Your task to perform on an android device: Open calendar and show me the second week of next month Image 0: 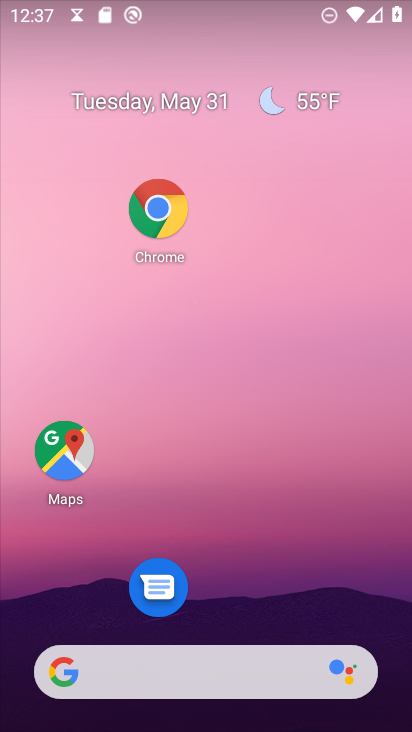
Step 0: drag from (293, 611) to (271, 164)
Your task to perform on an android device: Open calendar and show me the second week of next month Image 1: 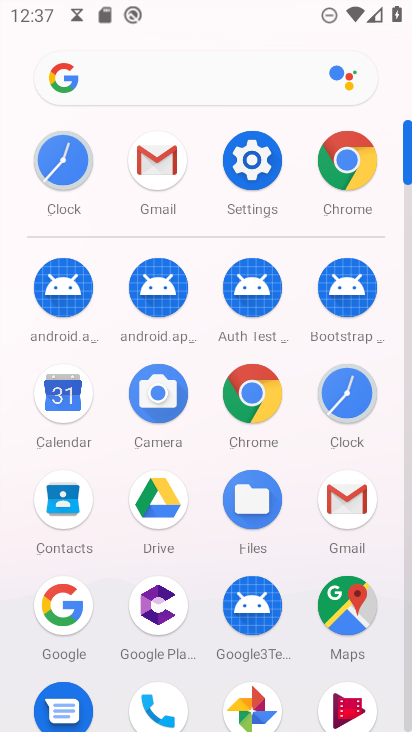
Step 1: click (57, 397)
Your task to perform on an android device: Open calendar and show me the second week of next month Image 2: 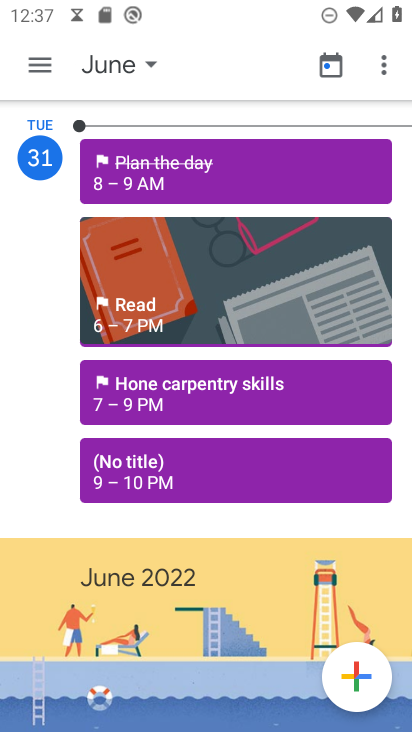
Step 2: click (142, 76)
Your task to perform on an android device: Open calendar and show me the second week of next month Image 3: 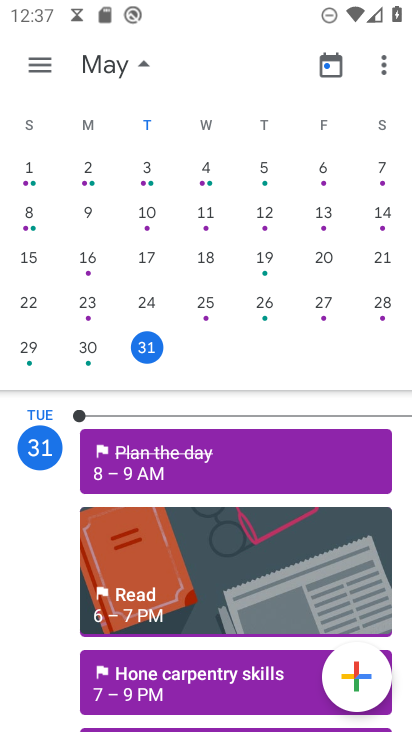
Step 3: drag from (294, 333) to (41, 194)
Your task to perform on an android device: Open calendar and show me the second week of next month Image 4: 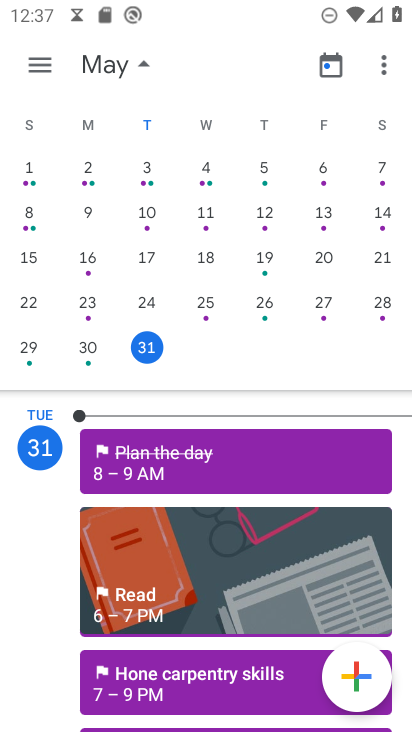
Step 4: drag from (301, 343) to (5, 304)
Your task to perform on an android device: Open calendar and show me the second week of next month Image 5: 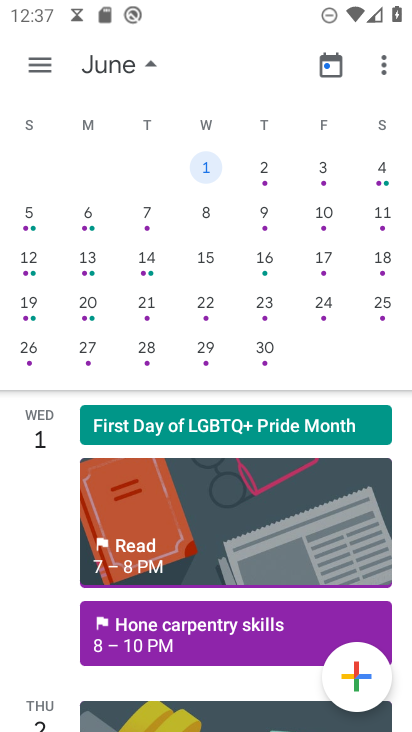
Step 5: click (34, 268)
Your task to perform on an android device: Open calendar and show me the second week of next month Image 6: 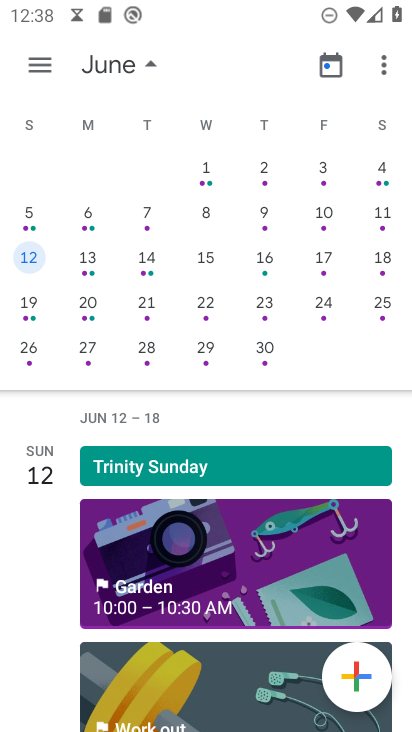
Step 6: click (23, 215)
Your task to perform on an android device: Open calendar and show me the second week of next month Image 7: 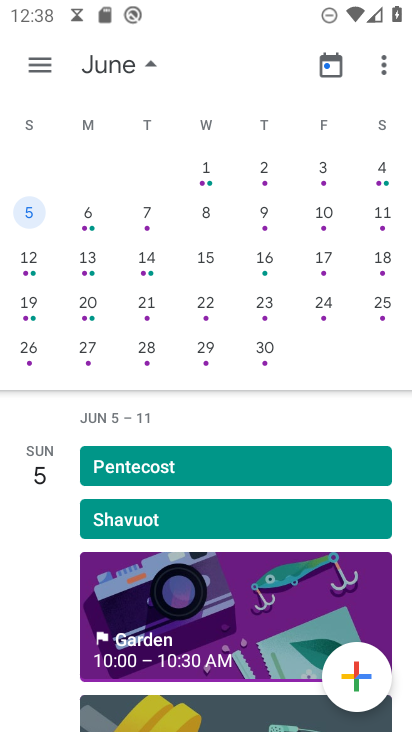
Step 7: click (38, 67)
Your task to perform on an android device: Open calendar and show me the second week of next month Image 8: 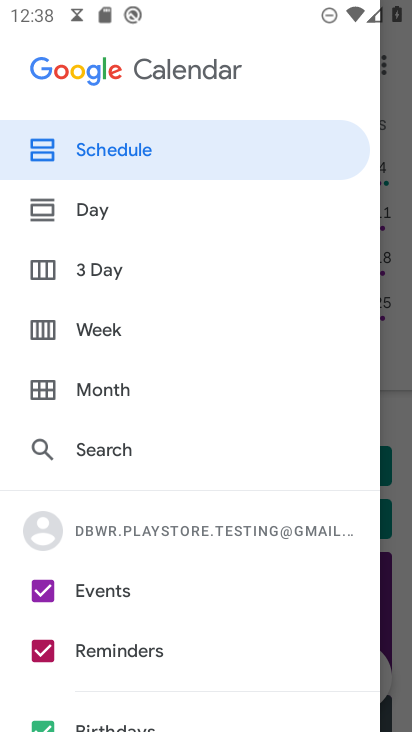
Step 8: click (89, 339)
Your task to perform on an android device: Open calendar and show me the second week of next month Image 9: 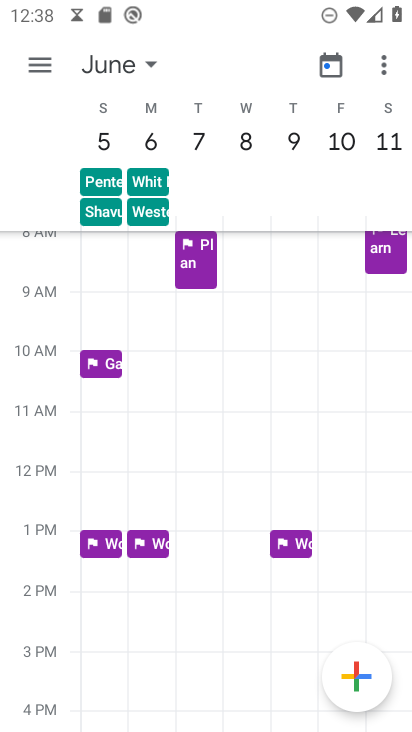
Step 9: task complete